Your task to perform on an android device: install app "PlayWell" Image 0: 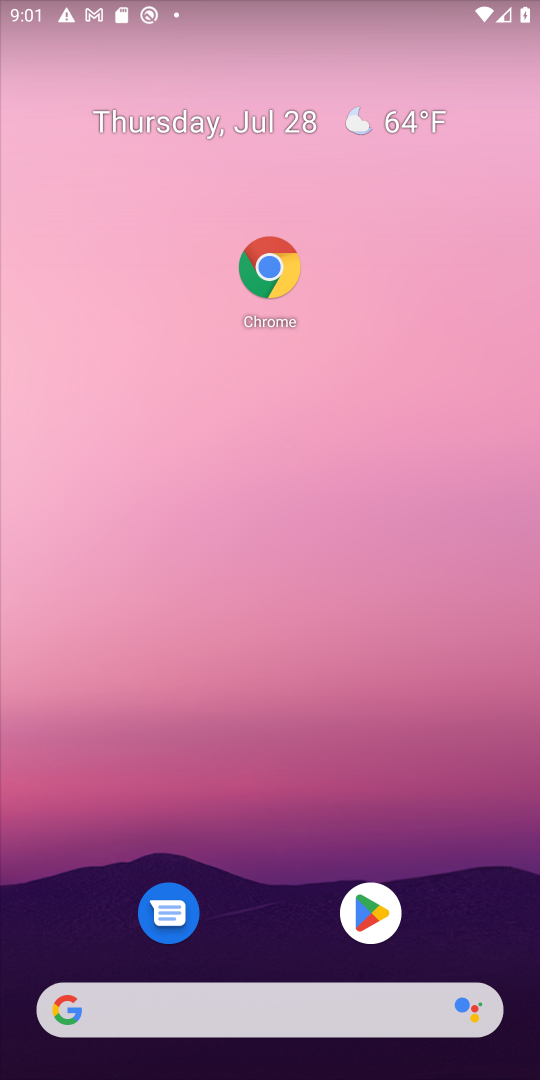
Step 0: click (366, 892)
Your task to perform on an android device: install app "PlayWell" Image 1: 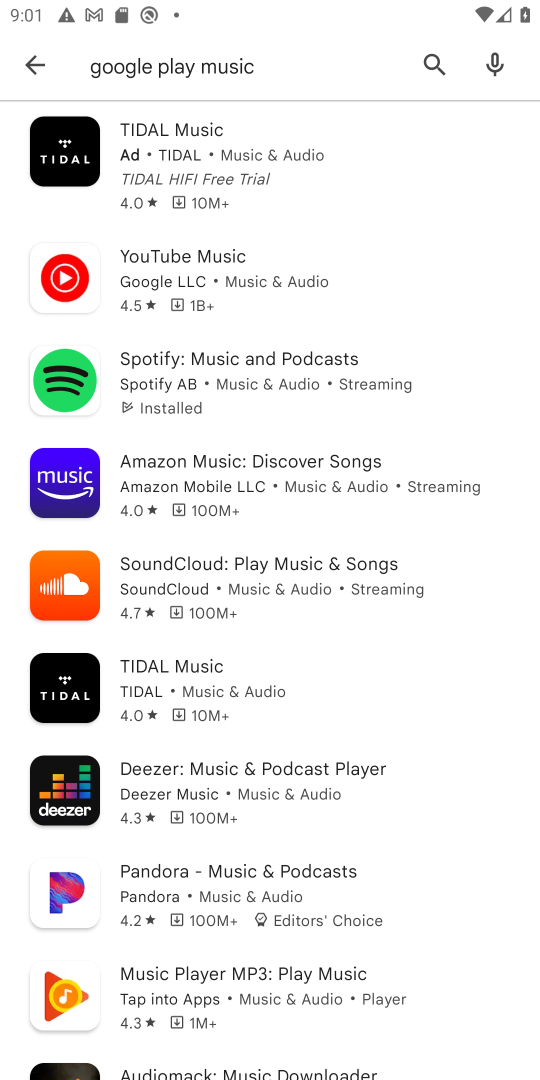
Step 1: click (423, 59)
Your task to perform on an android device: install app "PlayWell" Image 2: 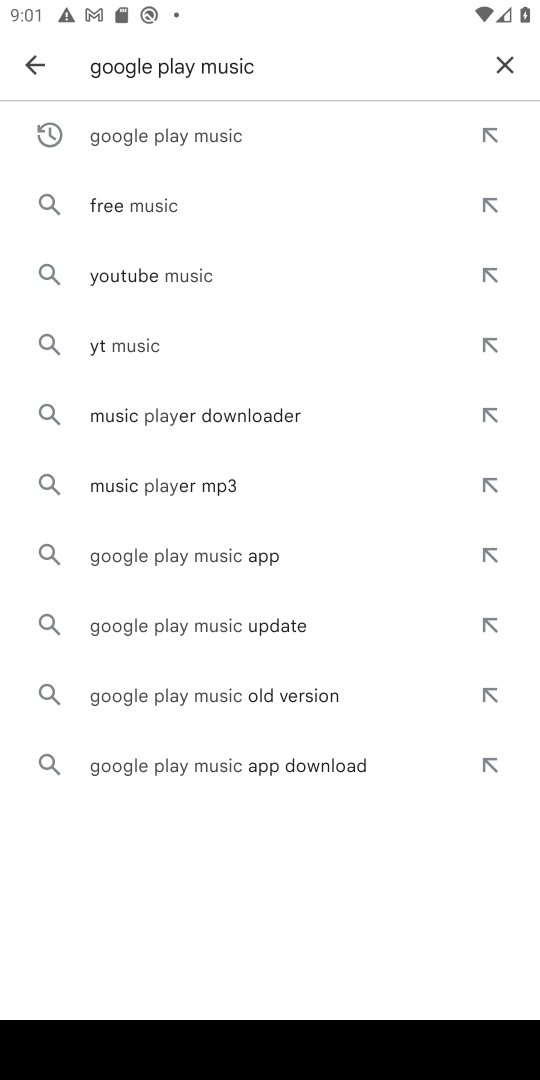
Step 2: click (504, 66)
Your task to perform on an android device: install app "PlayWell" Image 3: 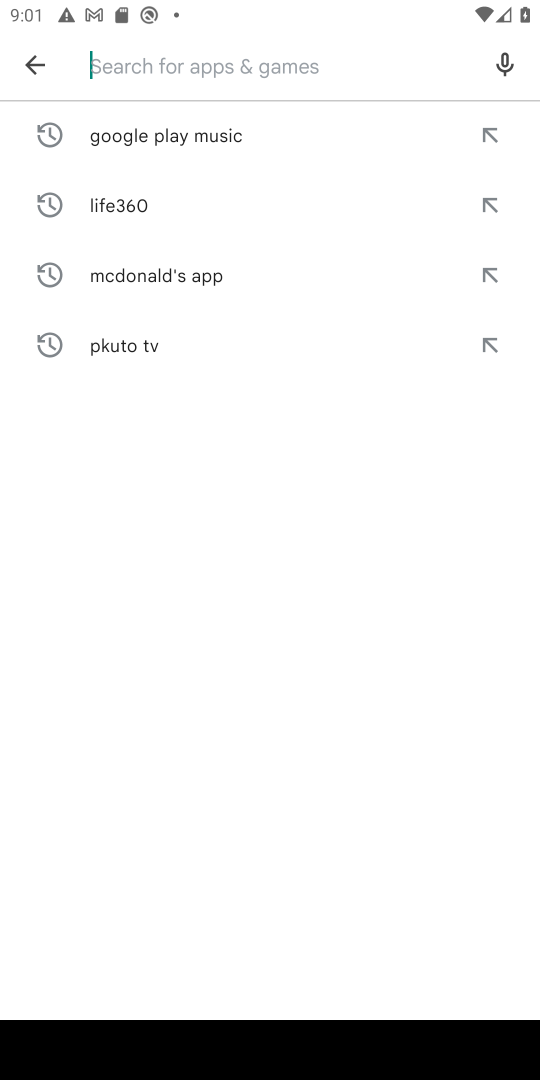
Step 3: type "playwell"
Your task to perform on an android device: install app "PlayWell" Image 4: 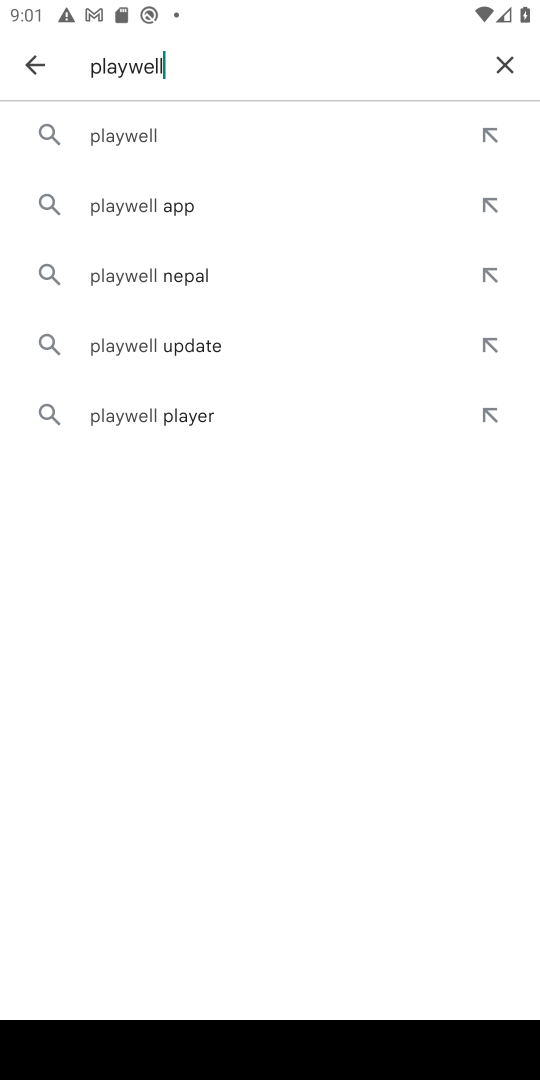
Step 4: click (165, 140)
Your task to perform on an android device: install app "PlayWell" Image 5: 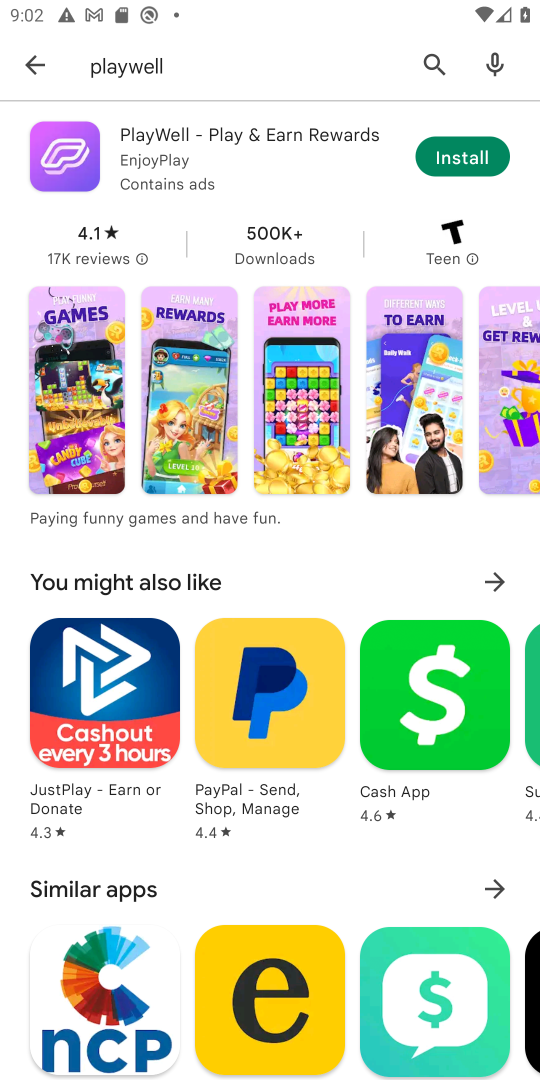
Step 5: click (467, 154)
Your task to perform on an android device: install app "PlayWell" Image 6: 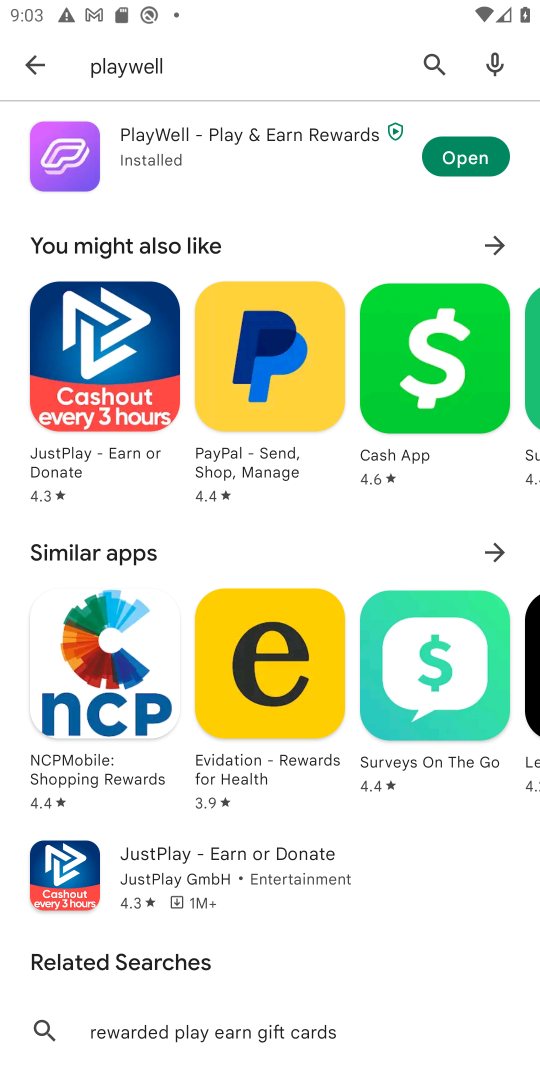
Step 6: task complete